Your task to perform on an android device: Go to calendar. Show me events next week Image 0: 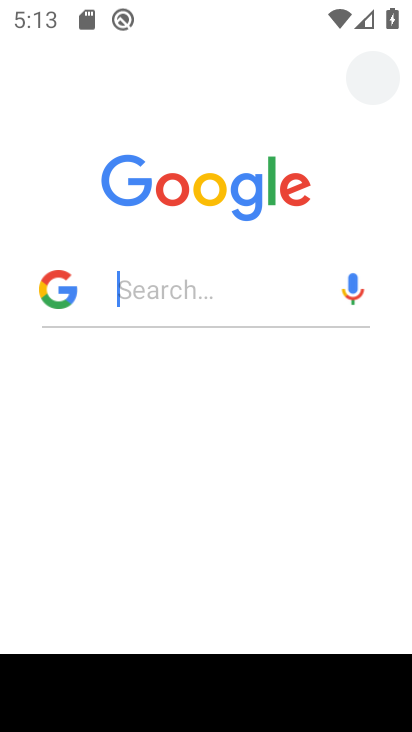
Step 0: press home button
Your task to perform on an android device: Go to calendar. Show me events next week Image 1: 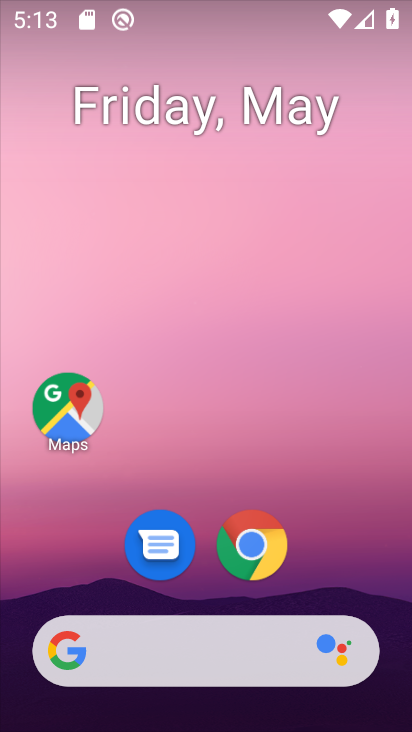
Step 1: drag from (202, 621) to (270, 185)
Your task to perform on an android device: Go to calendar. Show me events next week Image 2: 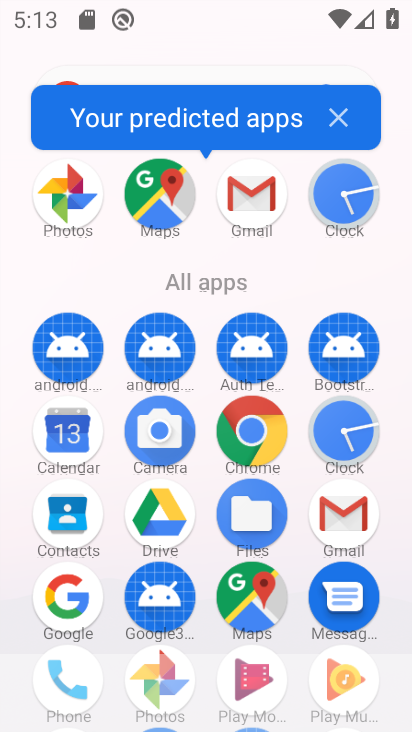
Step 2: click (85, 447)
Your task to perform on an android device: Go to calendar. Show me events next week Image 3: 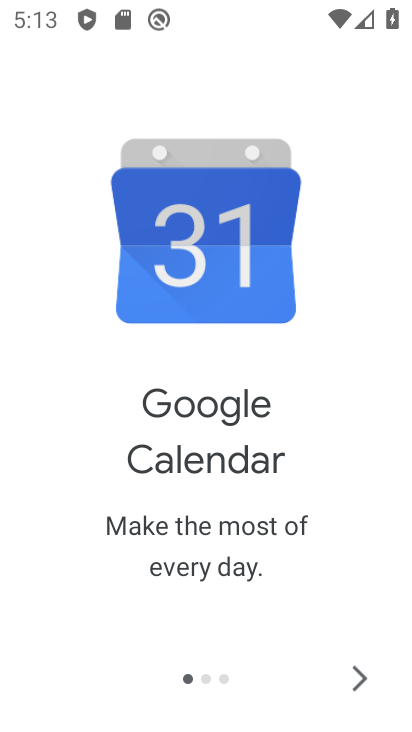
Step 3: click (362, 659)
Your task to perform on an android device: Go to calendar. Show me events next week Image 4: 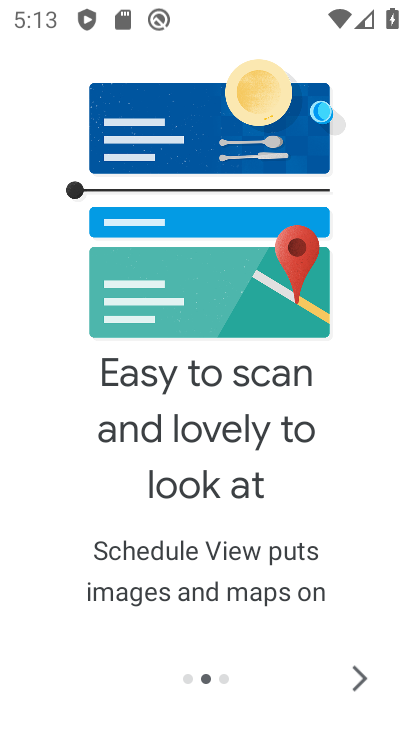
Step 4: click (373, 688)
Your task to perform on an android device: Go to calendar. Show me events next week Image 5: 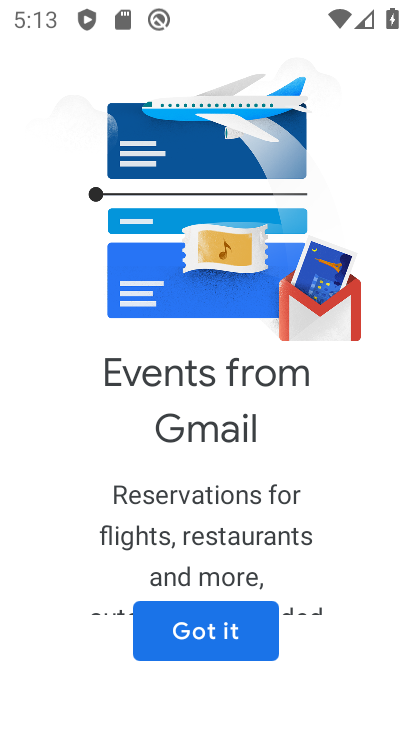
Step 5: click (239, 653)
Your task to perform on an android device: Go to calendar. Show me events next week Image 6: 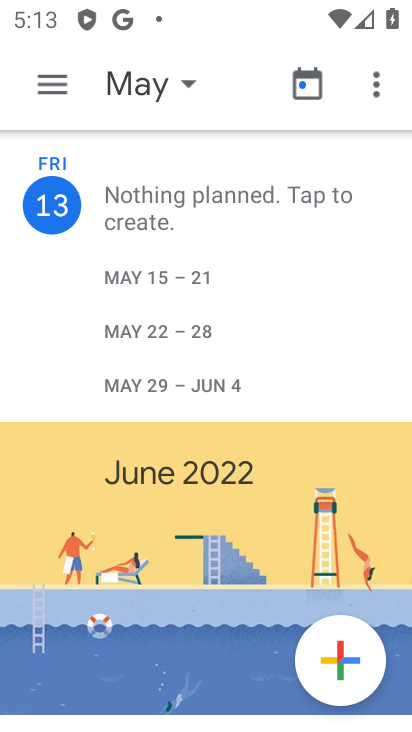
Step 6: click (35, 89)
Your task to perform on an android device: Go to calendar. Show me events next week Image 7: 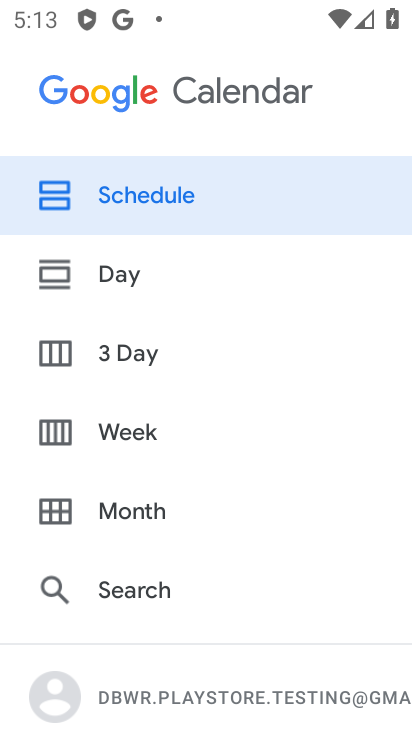
Step 7: click (97, 427)
Your task to perform on an android device: Go to calendar. Show me events next week Image 8: 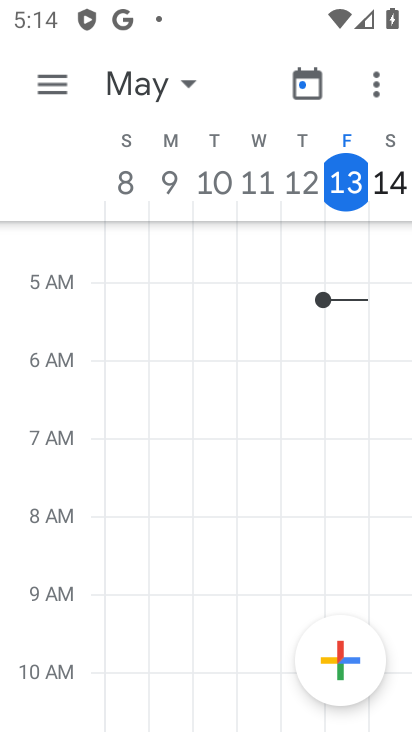
Step 8: click (127, 89)
Your task to perform on an android device: Go to calendar. Show me events next week Image 9: 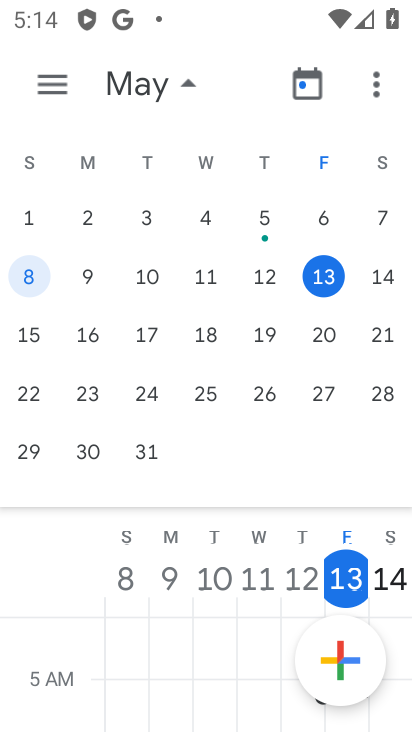
Step 9: click (23, 400)
Your task to perform on an android device: Go to calendar. Show me events next week Image 10: 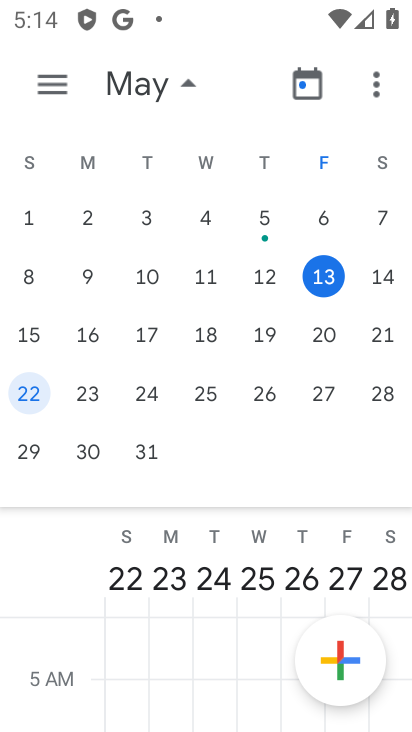
Step 10: click (18, 336)
Your task to perform on an android device: Go to calendar. Show me events next week Image 11: 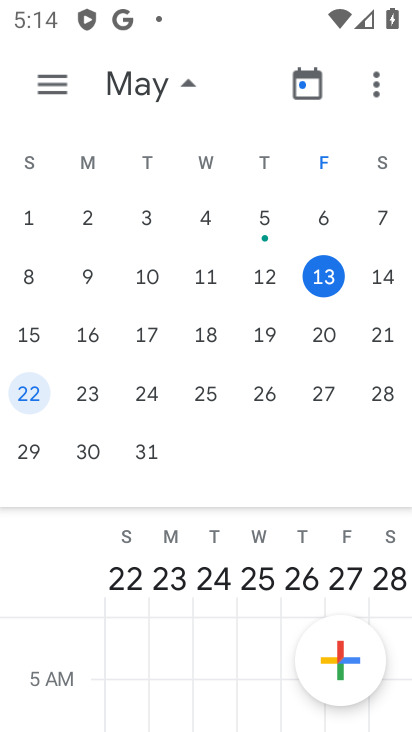
Step 11: click (28, 335)
Your task to perform on an android device: Go to calendar. Show me events next week Image 12: 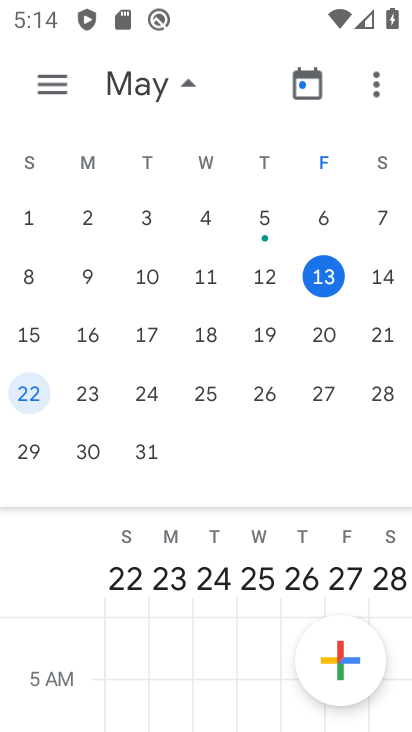
Step 12: click (28, 335)
Your task to perform on an android device: Go to calendar. Show me events next week Image 13: 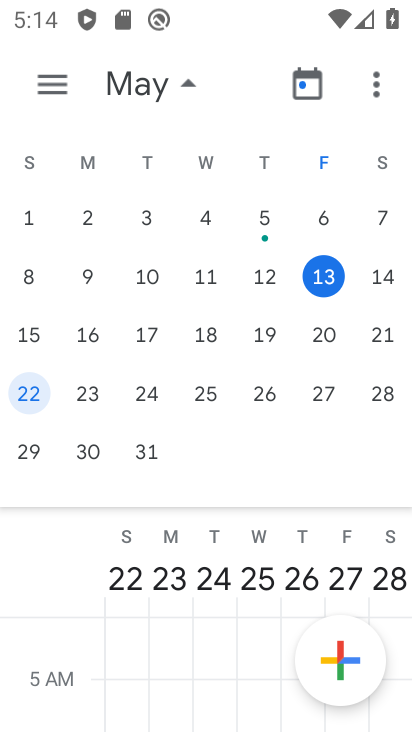
Step 13: click (36, 336)
Your task to perform on an android device: Go to calendar. Show me events next week Image 14: 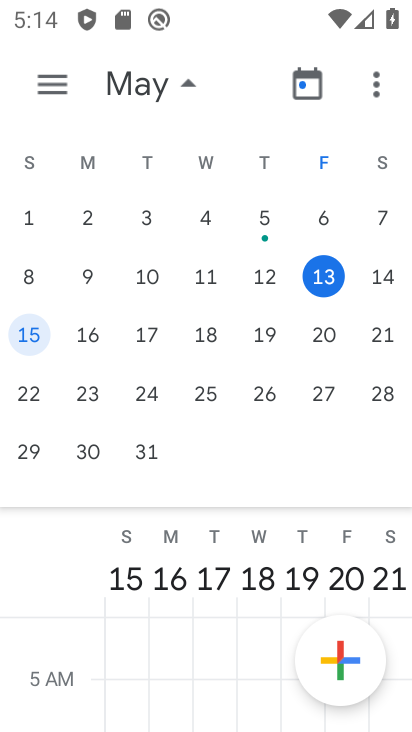
Step 14: click (146, 85)
Your task to perform on an android device: Go to calendar. Show me events next week Image 15: 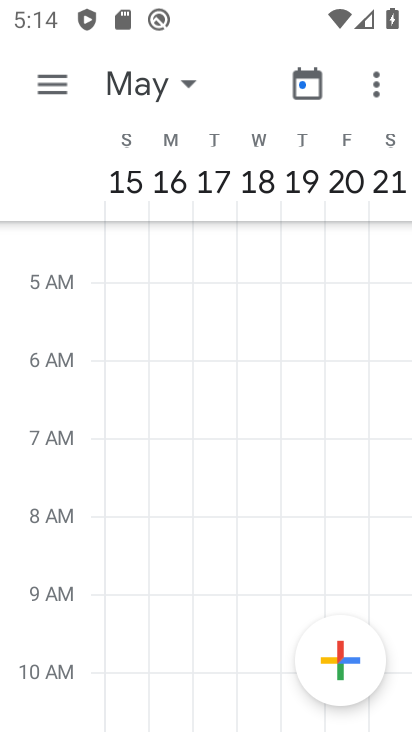
Step 15: task complete